Your task to perform on an android device: Open location settings Image 0: 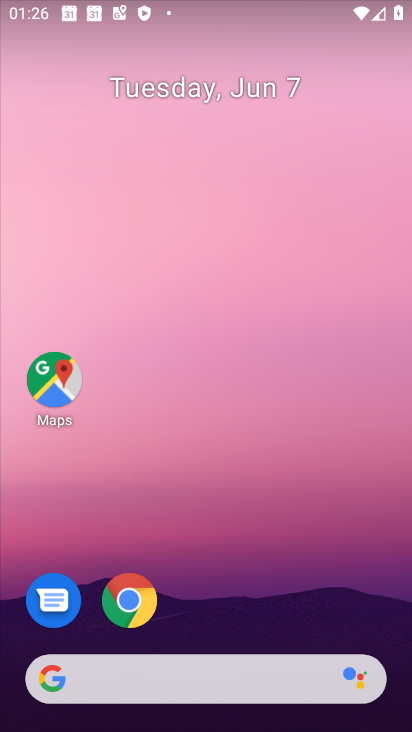
Step 0: drag from (204, 715) to (188, 119)
Your task to perform on an android device: Open location settings Image 1: 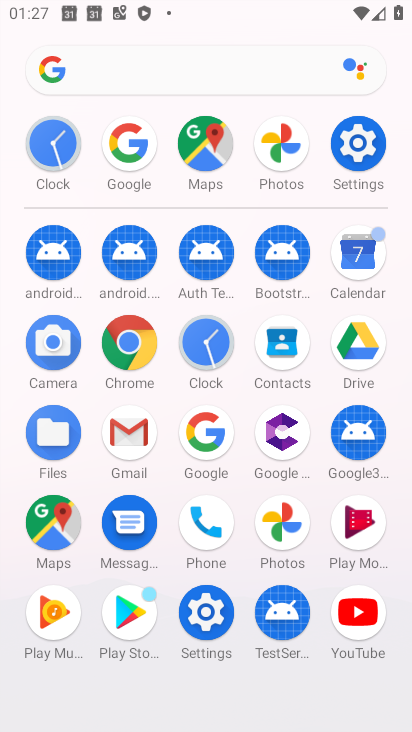
Step 1: click (355, 137)
Your task to perform on an android device: Open location settings Image 2: 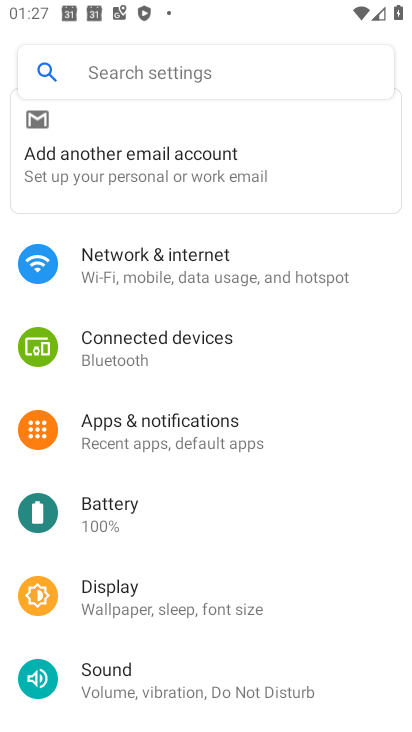
Step 2: drag from (150, 684) to (149, 333)
Your task to perform on an android device: Open location settings Image 3: 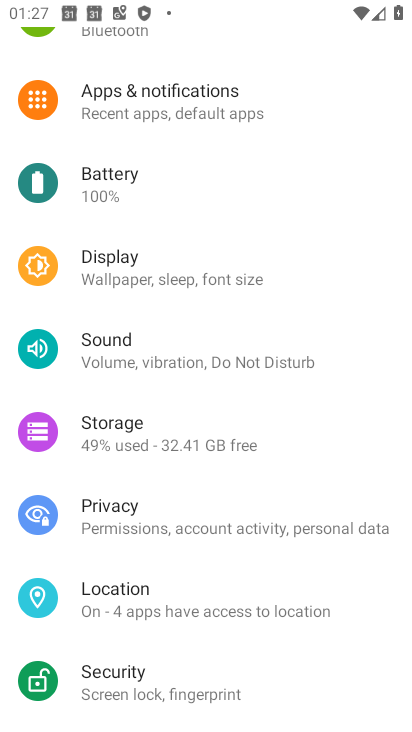
Step 3: click (132, 600)
Your task to perform on an android device: Open location settings Image 4: 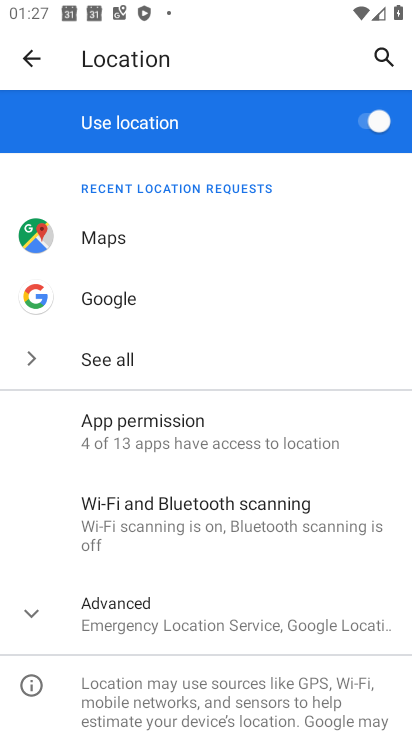
Step 4: task complete